Your task to perform on an android device: Open the stopwatch Image 0: 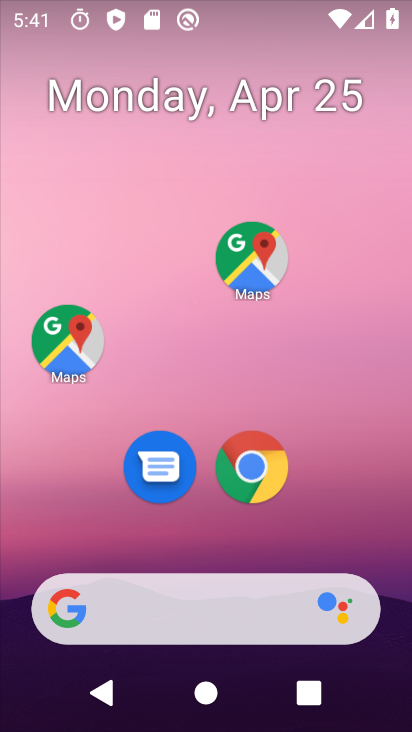
Step 0: drag from (330, 587) to (345, 4)
Your task to perform on an android device: Open the stopwatch Image 1: 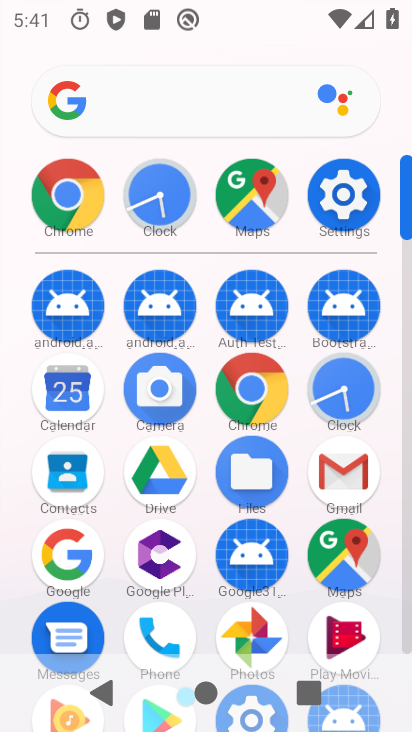
Step 1: click (332, 411)
Your task to perform on an android device: Open the stopwatch Image 2: 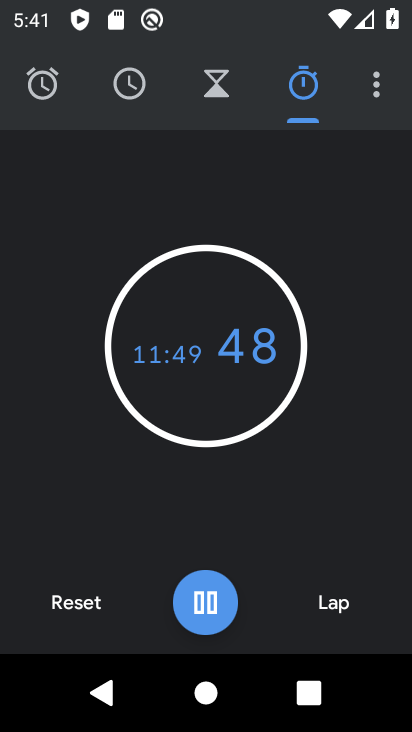
Step 2: click (67, 601)
Your task to perform on an android device: Open the stopwatch Image 3: 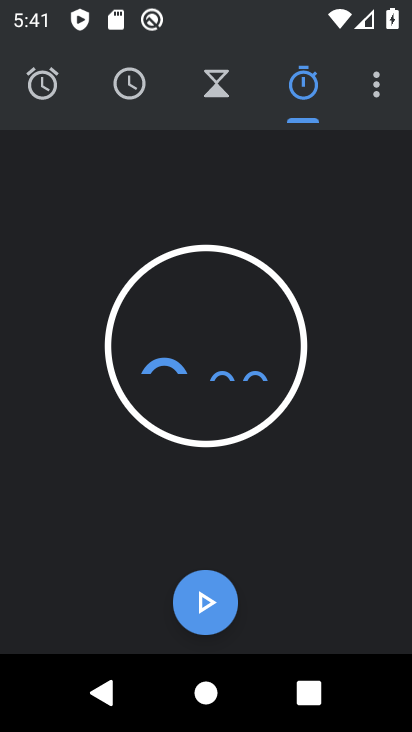
Step 3: click (67, 601)
Your task to perform on an android device: Open the stopwatch Image 4: 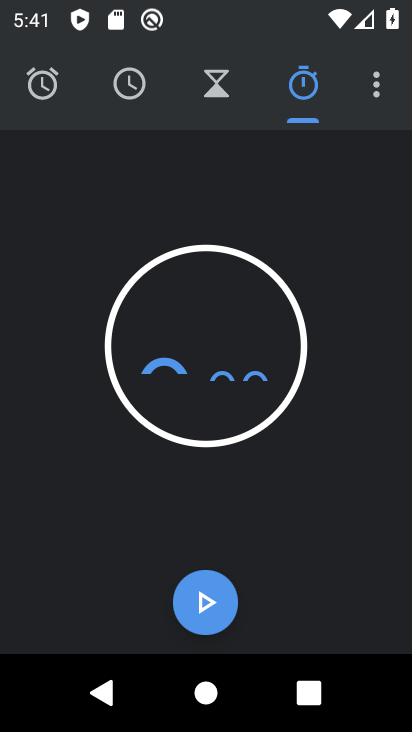
Step 4: click (218, 610)
Your task to perform on an android device: Open the stopwatch Image 5: 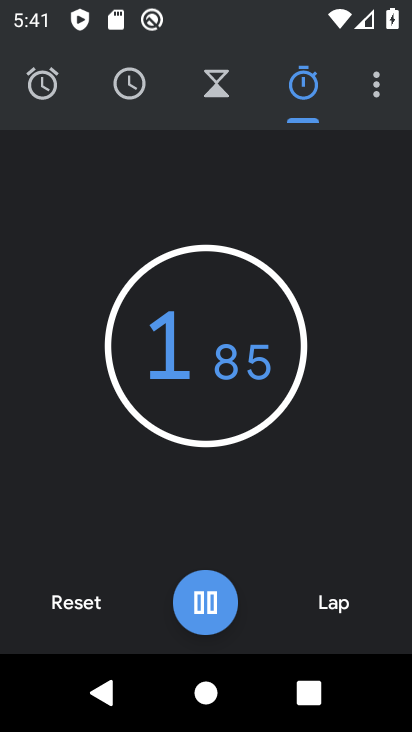
Step 5: task complete